Your task to perform on an android device: open a new tab in the chrome app Image 0: 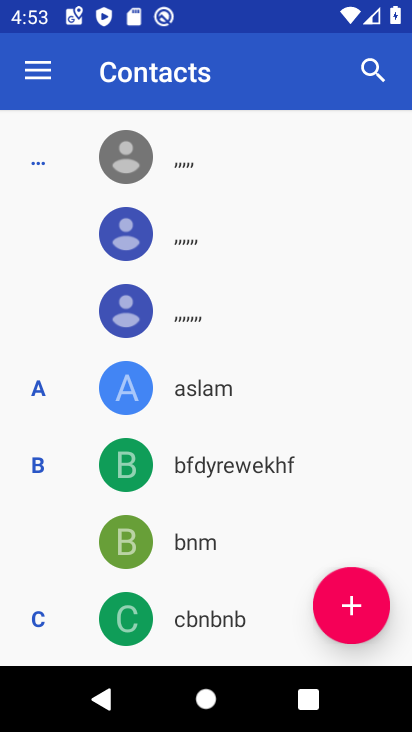
Step 0: press home button
Your task to perform on an android device: open a new tab in the chrome app Image 1: 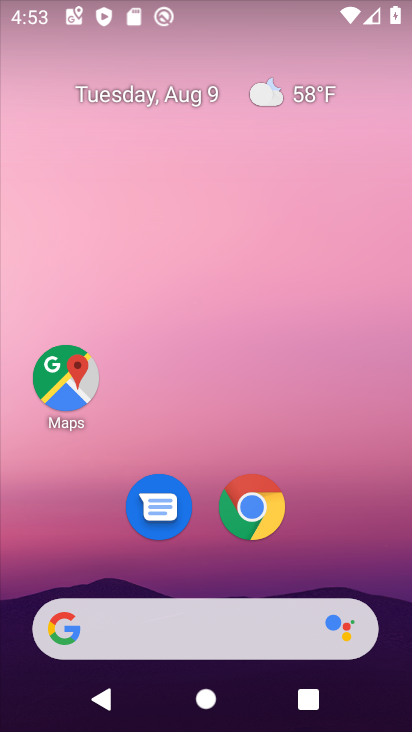
Step 1: click (255, 512)
Your task to perform on an android device: open a new tab in the chrome app Image 2: 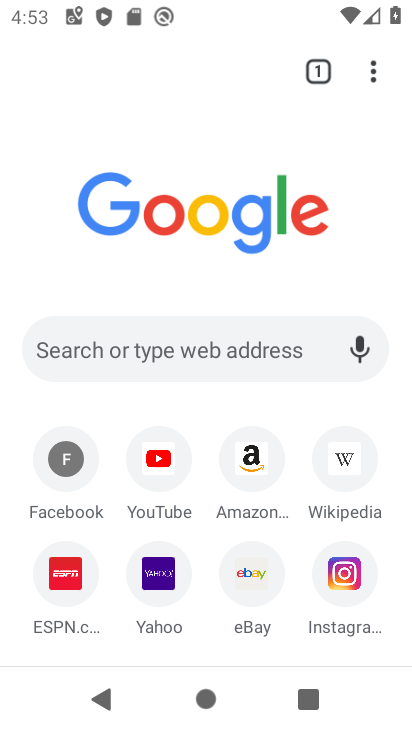
Step 2: click (375, 65)
Your task to perform on an android device: open a new tab in the chrome app Image 3: 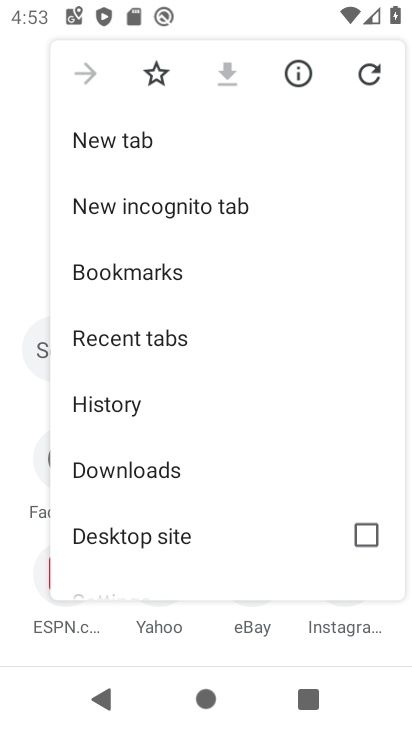
Step 3: click (136, 154)
Your task to perform on an android device: open a new tab in the chrome app Image 4: 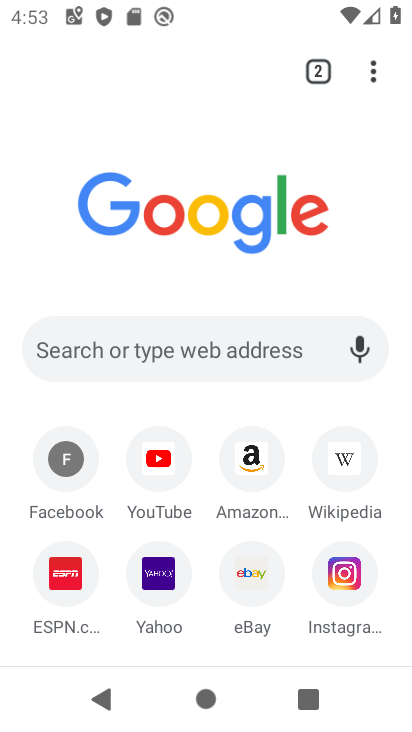
Step 4: task complete